Your task to perform on an android device: turn off data saver in the chrome app Image 0: 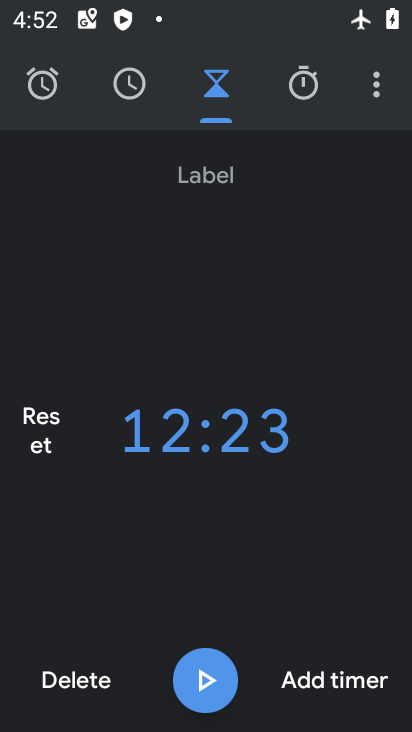
Step 0: press back button
Your task to perform on an android device: turn off data saver in the chrome app Image 1: 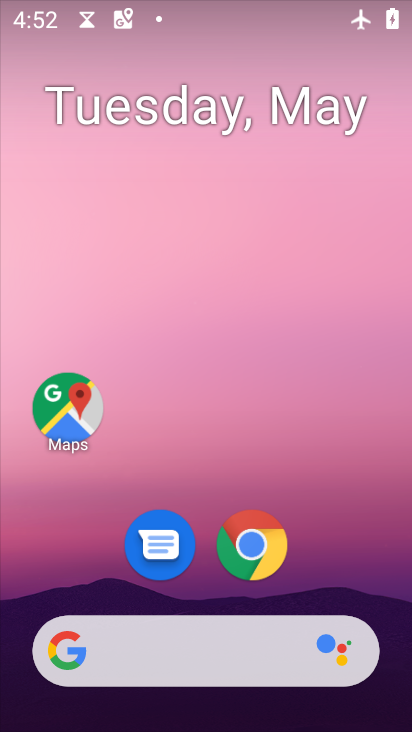
Step 1: click (251, 545)
Your task to perform on an android device: turn off data saver in the chrome app Image 2: 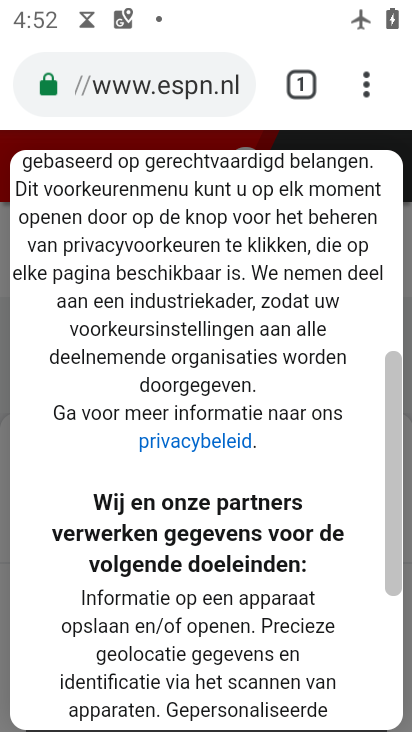
Step 2: click (368, 85)
Your task to perform on an android device: turn off data saver in the chrome app Image 3: 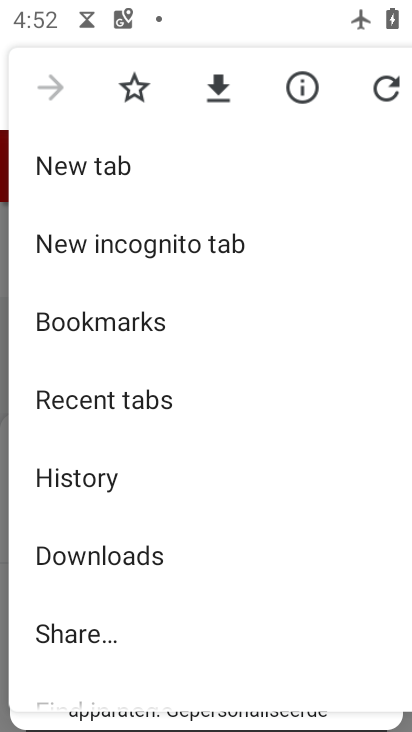
Step 3: drag from (167, 492) to (219, 332)
Your task to perform on an android device: turn off data saver in the chrome app Image 4: 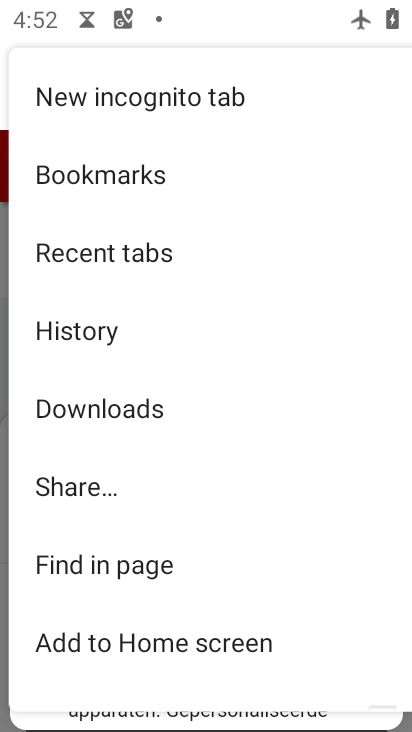
Step 4: drag from (112, 466) to (181, 379)
Your task to perform on an android device: turn off data saver in the chrome app Image 5: 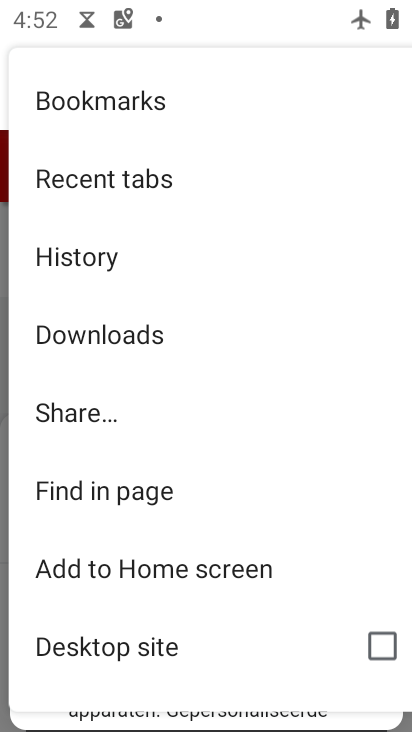
Step 5: drag from (102, 522) to (181, 417)
Your task to perform on an android device: turn off data saver in the chrome app Image 6: 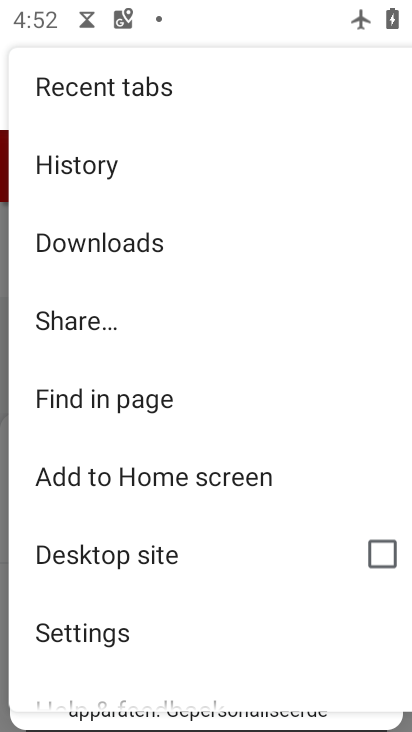
Step 6: drag from (110, 526) to (211, 410)
Your task to perform on an android device: turn off data saver in the chrome app Image 7: 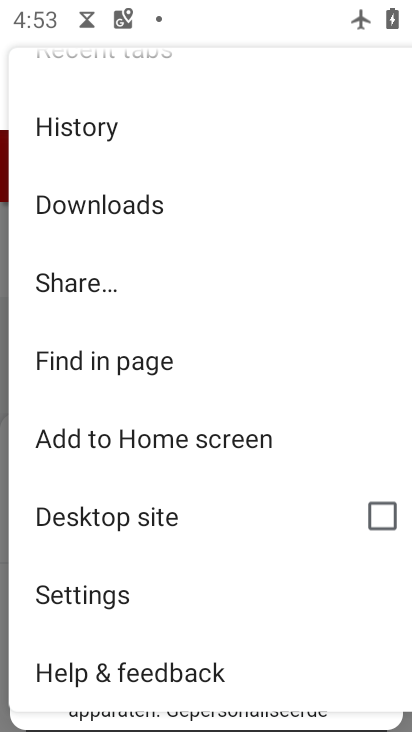
Step 7: click (98, 596)
Your task to perform on an android device: turn off data saver in the chrome app Image 8: 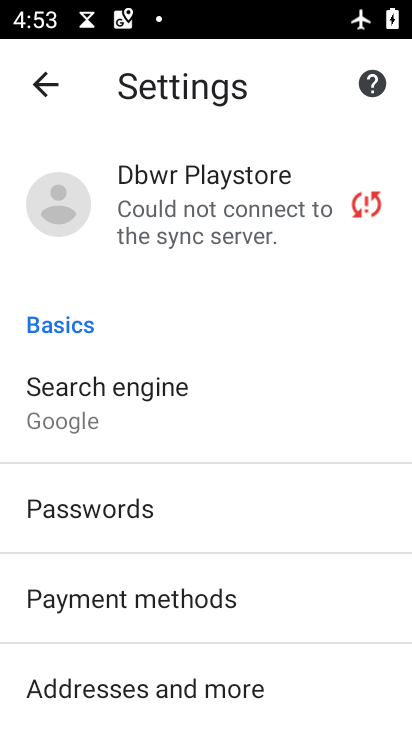
Step 8: drag from (107, 572) to (206, 452)
Your task to perform on an android device: turn off data saver in the chrome app Image 9: 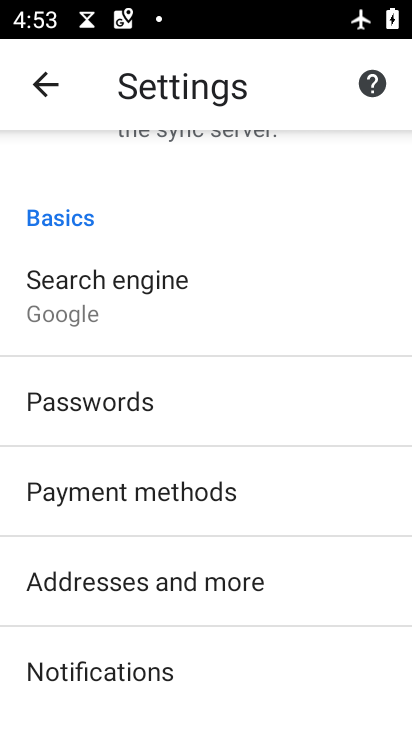
Step 9: drag from (115, 612) to (205, 501)
Your task to perform on an android device: turn off data saver in the chrome app Image 10: 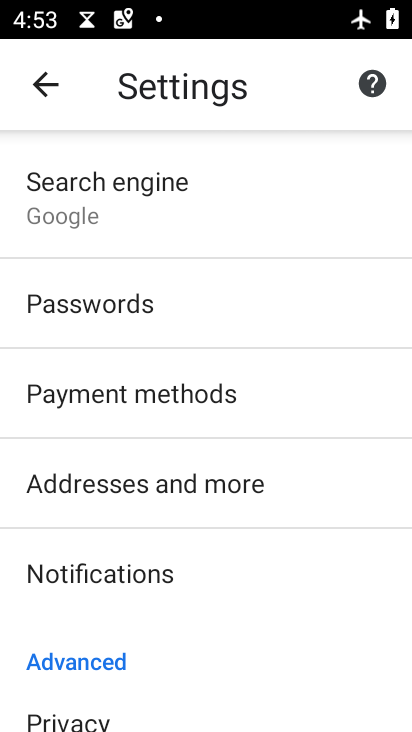
Step 10: drag from (125, 606) to (211, 485)
Your task to perform on an android device: turn off data saver in the chrome app Image 11: 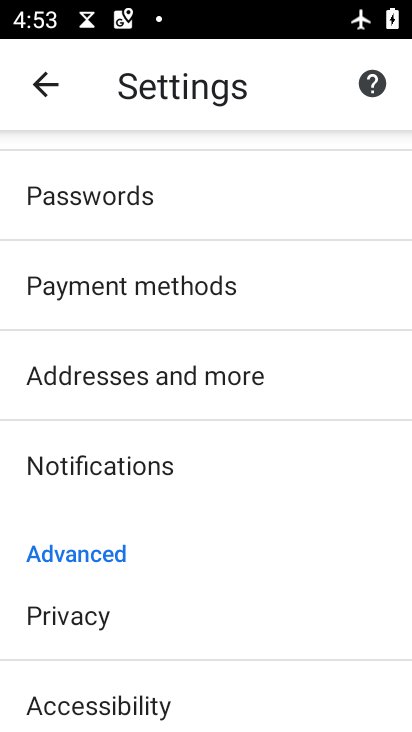
Step 11: drag from (152, 516) to (208, 391)
Your task to perform on an android device: turn off data saver in the chrome app Image 12: 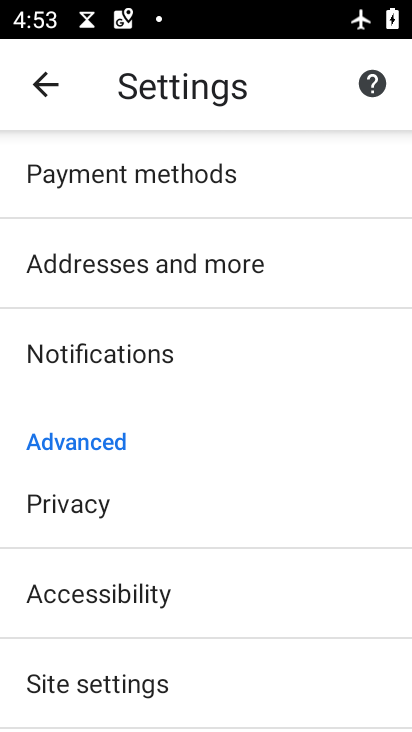
Step 12: drag from (128, 560) to (209, 455)
Your task to perform on an android device: turn off data saver in the chrome app Image 13: 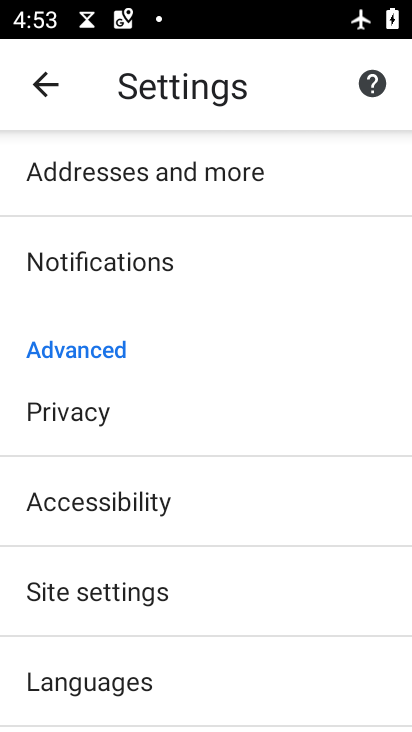
Step 13: drag from (98, 610) to (192, 497)
Your task to perform on an android device: turn off data saver in the chrome app Image 14: 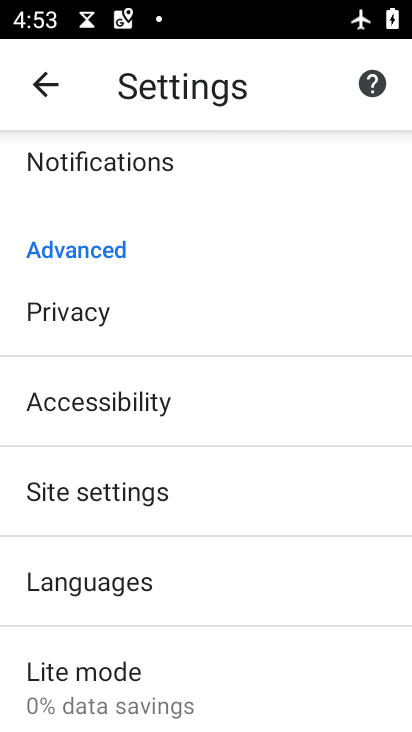
Step 14: drag from (119, 625) to (225, 507)
Your task to perform on an android device: turn off data saver in the chrome app Image 15: 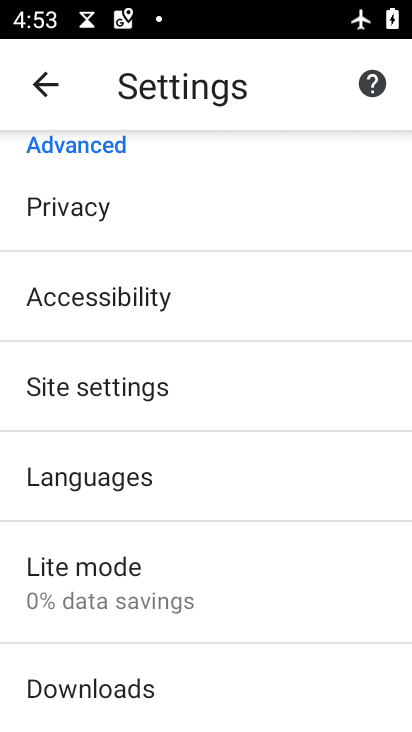
Step 15: click (120, 583)
Your task to perform on an android device: turn off data saver in the chrome app Image 16: 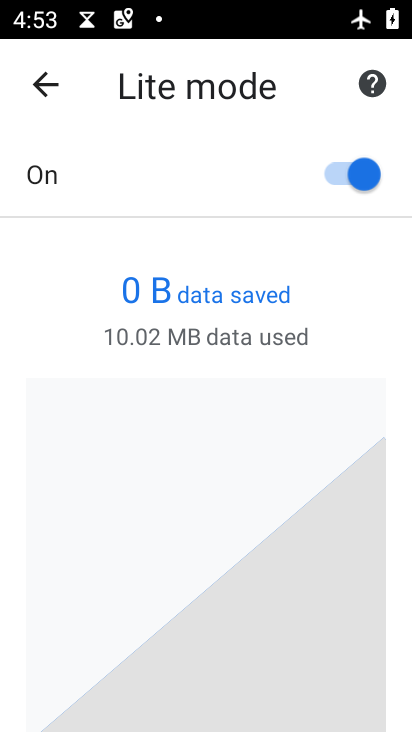
Step 16: click (338, 174)
Your task to perform on an android device: turn off data saver in the chrome app Image 17: 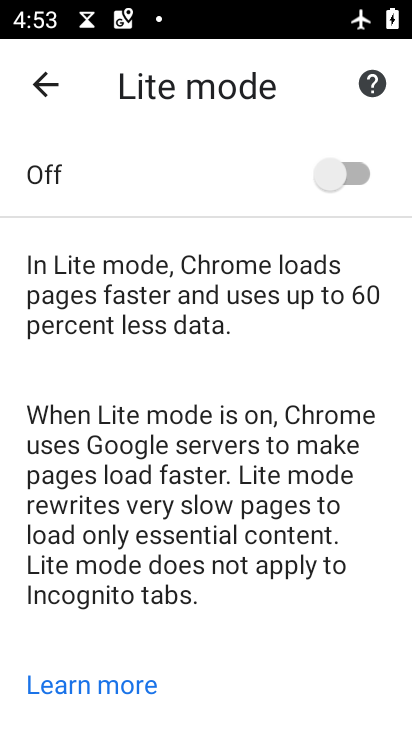
Step 17: task complete